Your task to perform on an android device: add a contact in the contacts app Image 0: 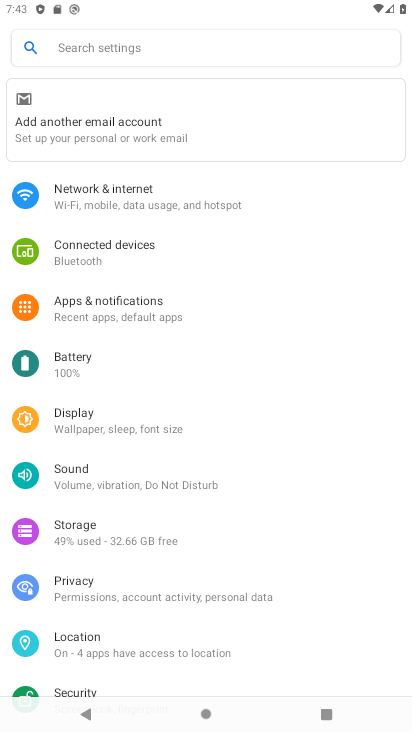
Step 0: press home button
Your task to perform on an android device: add a contact in the contacts app Image 1: 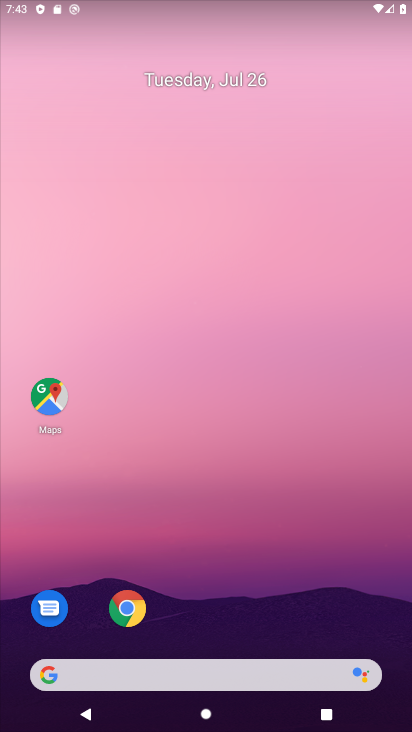
Step 1: drag from (78, 624) to (255, 146)
Your task to perform on an android device: add a contact in the contacts app Image 2: 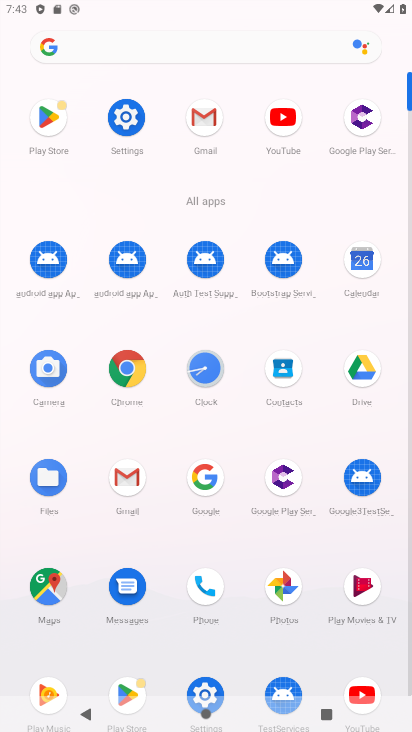
Step 2: click (205, 595)
Your task to perform on an android device: add a contact in the contacts app Image 3: 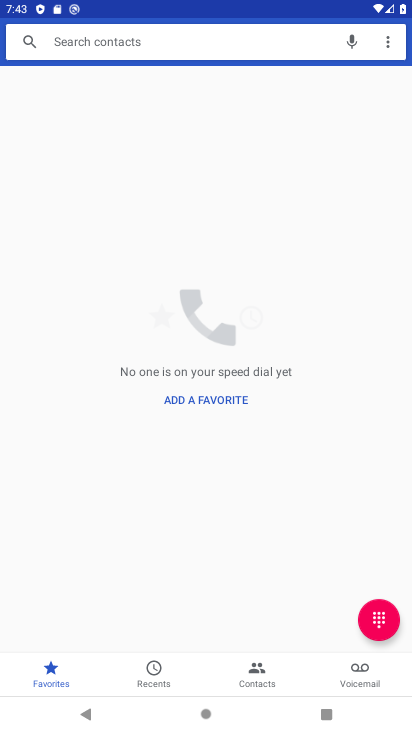
Step 3: click (256, 671)
Your task to perform on an android device: add a contact in the contacts app Image 4: 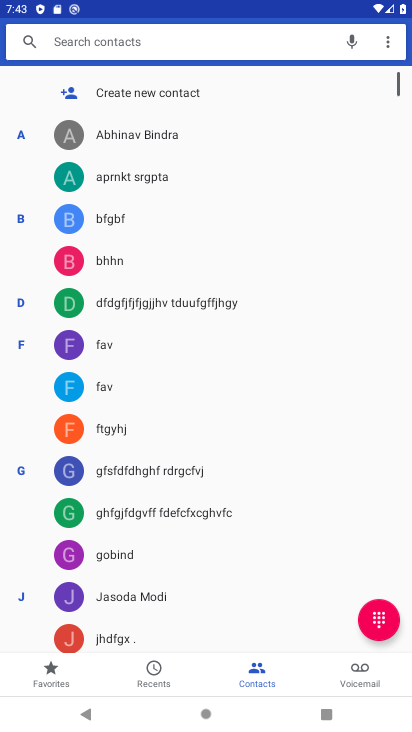
Step 4: click (134, 90)
Your task to perform on an android device: add a contact in the contacts app Image 5: 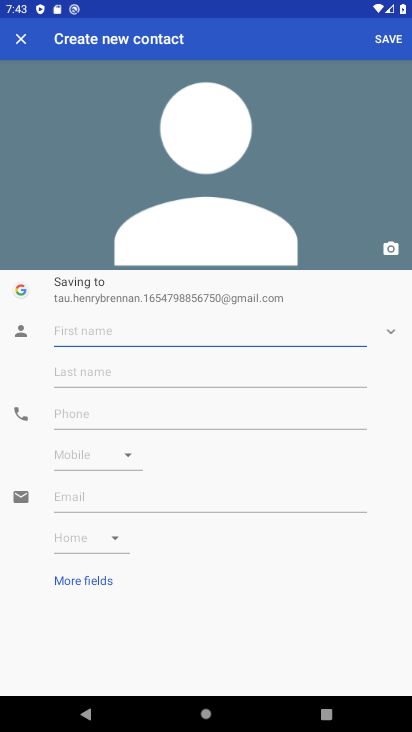
Step 5: type "erhdyhtrgj"
Your task to perform on an android device: add a contact in the contacts app Image 6: 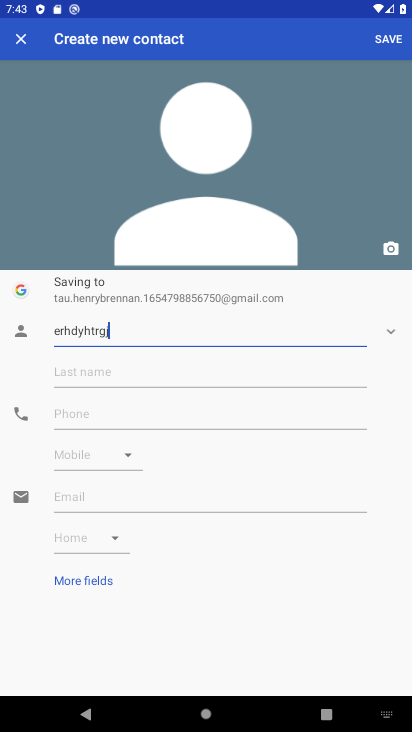
Step 6: type ""
Your task to perform on an android device: add a contact in the contacts app Image 7: 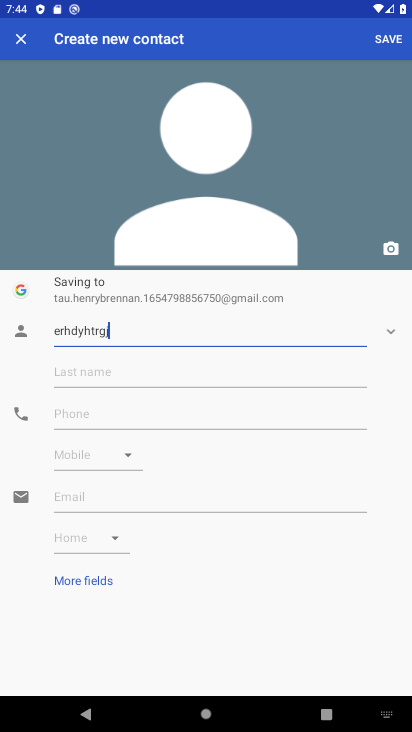
Step 7: click (389, 30)
Your task to perform on an android device: add a contact in the contacts app Image 8: 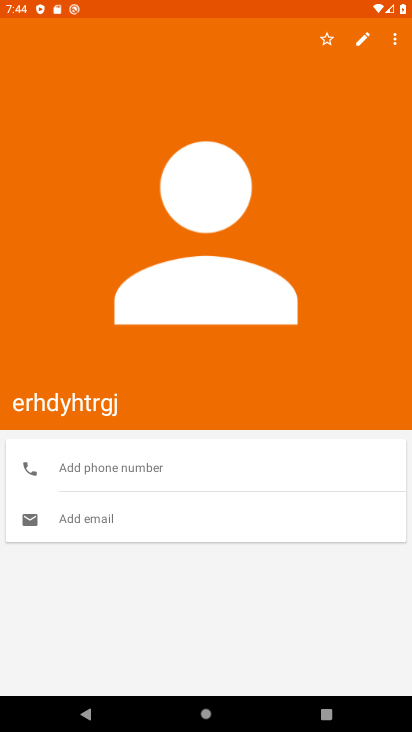
Step 8: task complete